Your task to perform on an android device: set an alarm Image 0: 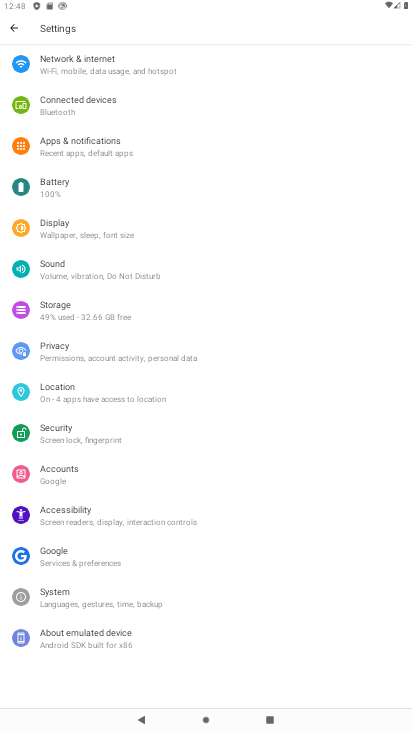
Step 0: press home button
Your task to perform on an android device: set an alarm Image 1: 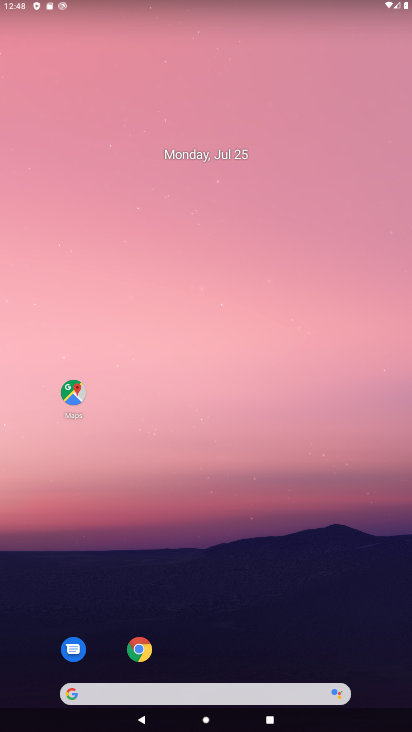
Step 1: drag from (248, 283) to (235, 83)
Your task to perform on an android device: set an alarm Image 2: 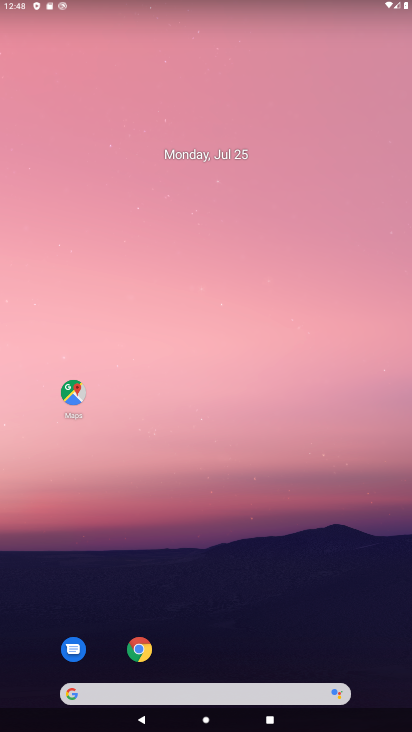
Step 2: drag from (257, 534) to (264, 13)
Your task to perform on an android device: set an alarm Image 3: 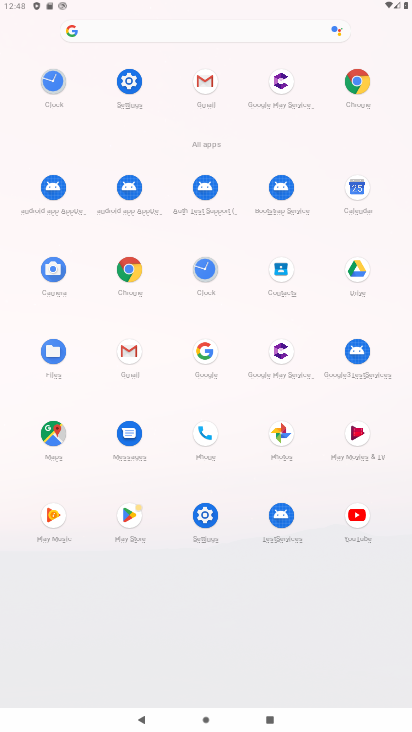
Step 3: click (209, 267)
Your task to perform on an android device: set an alarm Image 4: 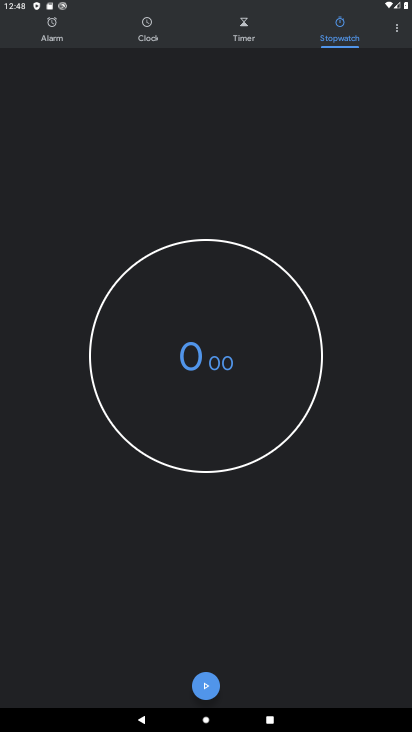
Step 4: click (56, 25)
Your task to perform on an android device: set an alarm Image 5: 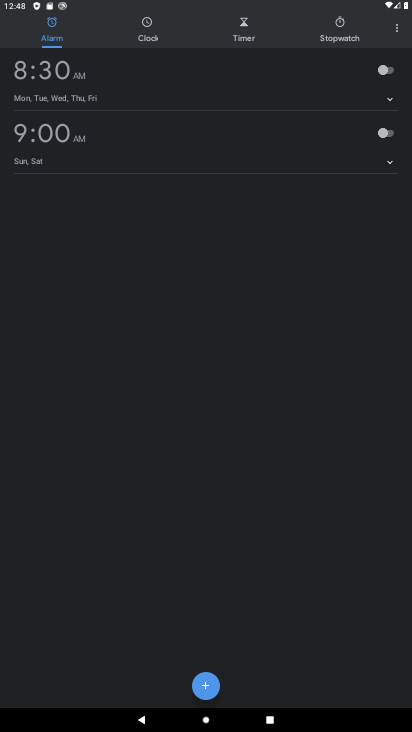
Step 5: click (209, 676)
Your task to perform on an android device: set an alarm Image 6: 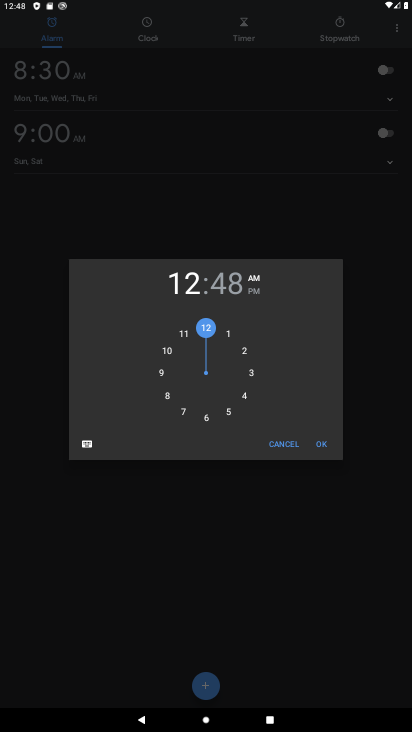
Step 6: click (245, 376)
Your task to perform on an android device: set an alarm Image 7: 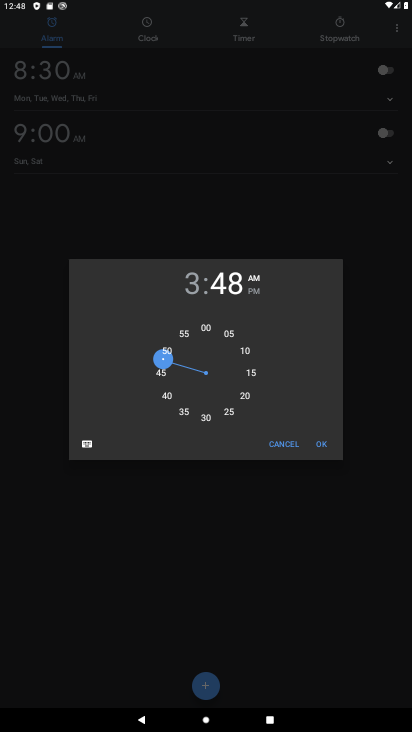
Step 7: click (318, 438)
Your task to perform on an android device: set an alarm Image 8: 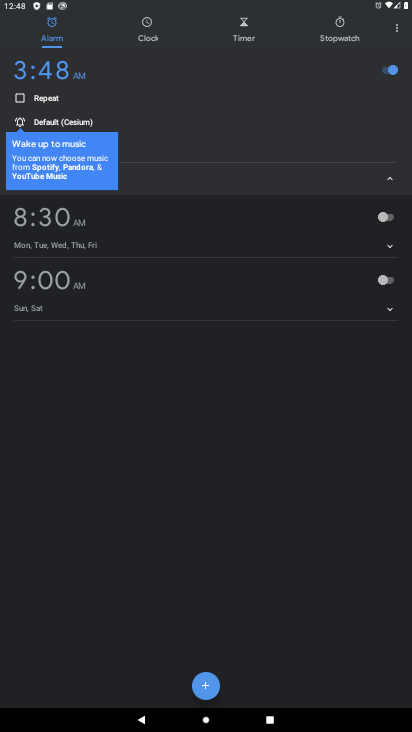
Step 8: task complete